Your task to perform on an android device: Go to settings Image 0: 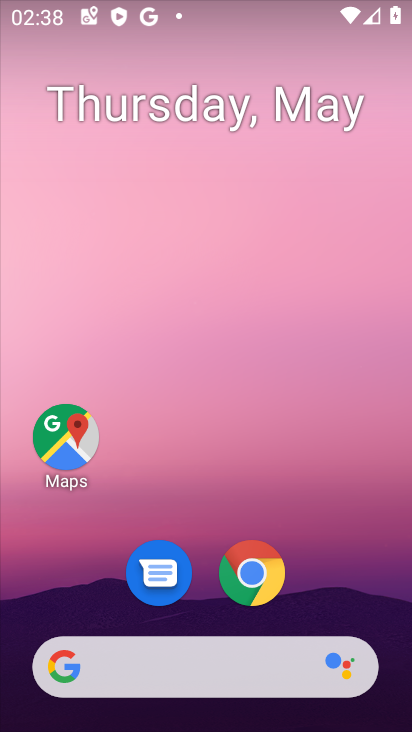
Step 0: drag from (284, 569) to (288, 281)
Your task to perform on an android device: Go to settings Image 1: 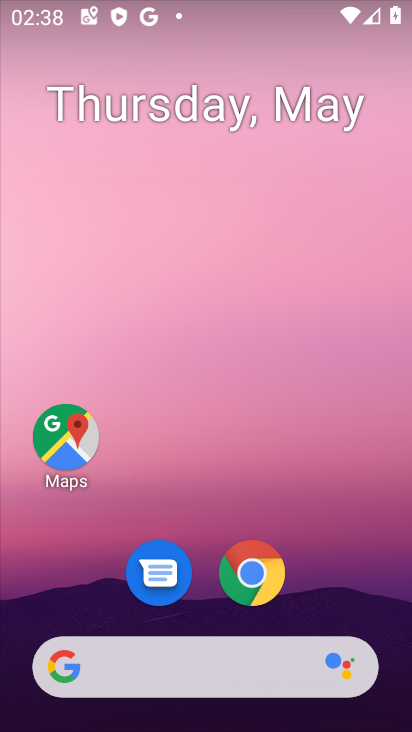
Step 1: drag from (380, 617) to (348, 300)
Your task to perform on an android device: Go to settings Image 2: 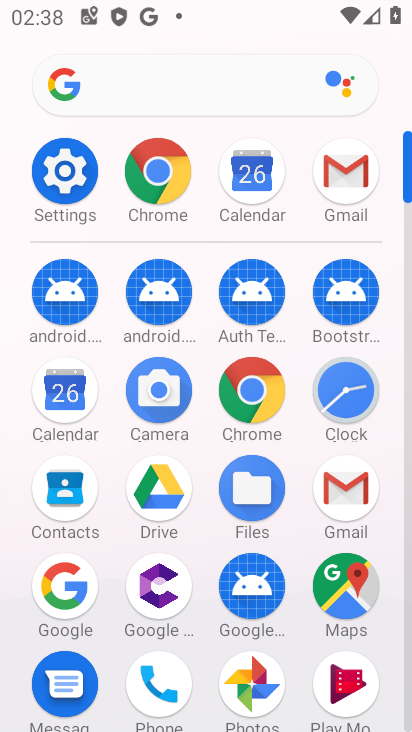
Step 2: click (58, 165)
Your task to perform on an android device: Go to settings Image 3: 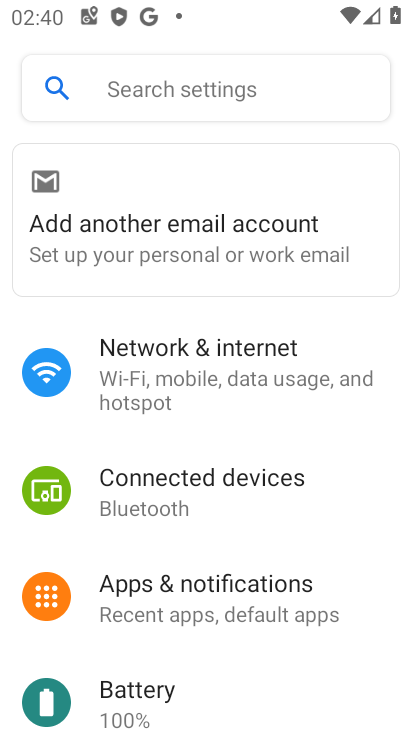
Step 3: task complete